Your task to perform on an android device: What's the weather going to be this weekend? Image 0: 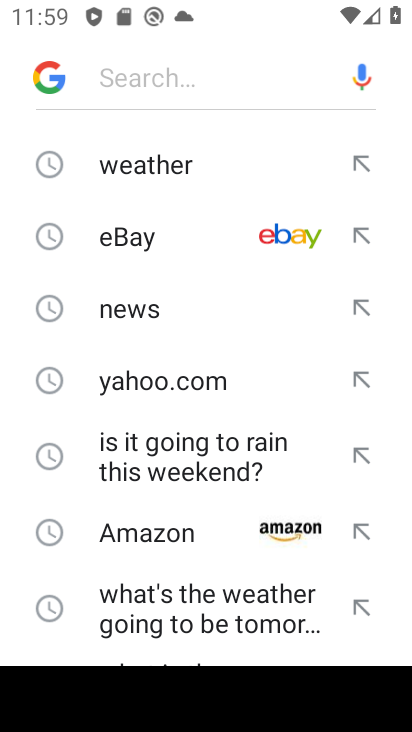
Step 0: press home button
Your task to perform on an android device: What's the weather going to be this weekend? Image 1: 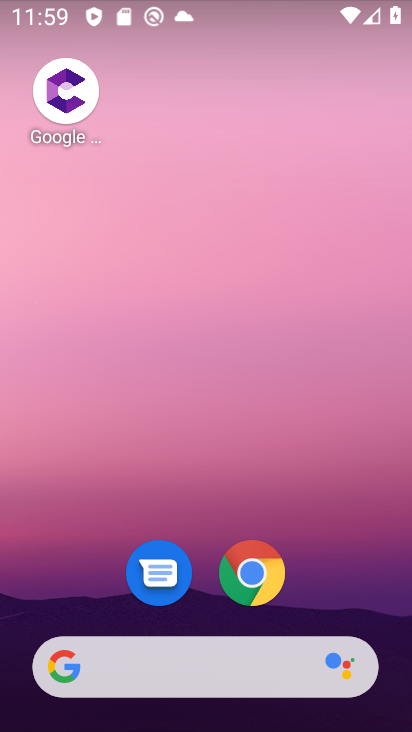
Step 1: click (173, 661)
Your task to perform on an android device: What's the weather going to be this weekend? Image 2: 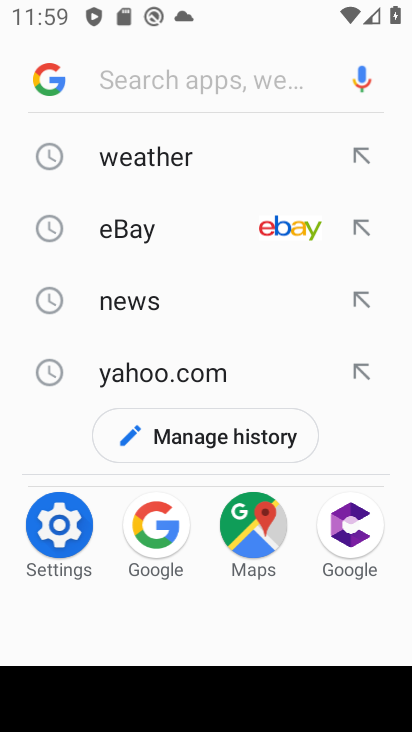
Step 2: type "What's the weather going to be this weekend?"
Your task to perform on an android device: What's the weather going to be this weekend? Image 3: 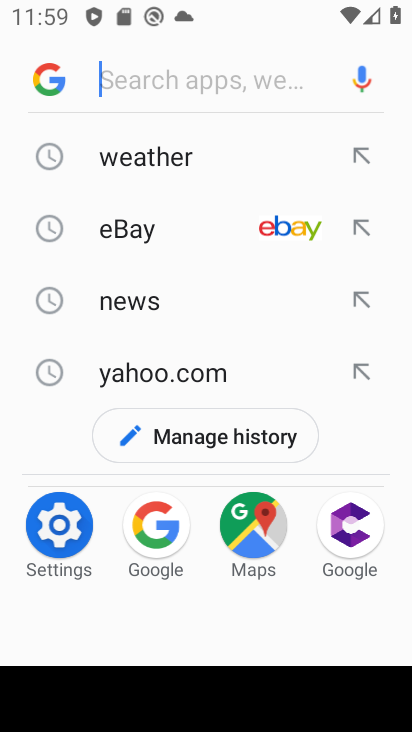
Step 3: click (209, 90)
Your task to perform on an android device: What's the weather going to be this weekend? Image 4: 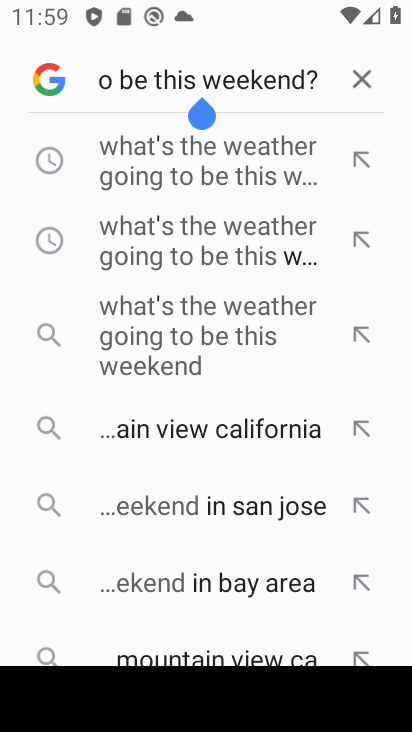
Step 4: click (215, 177)
Your task to perform on an android device: What's the weather going to be this weekend? Image 5: 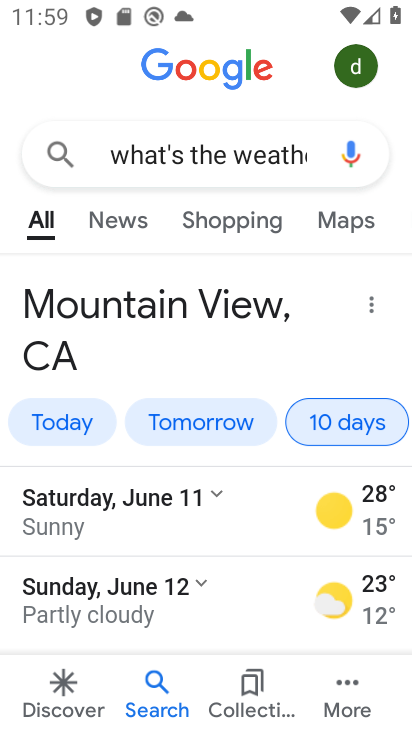
Step 5: task complete